Your task to perform on an android device: refresh tabs in the chrome app Image 0: 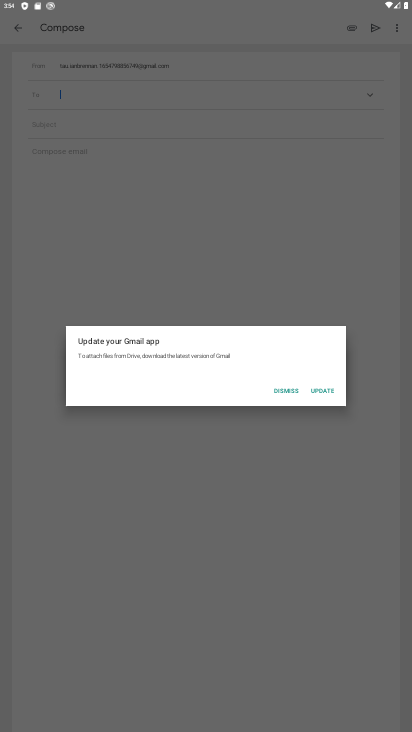
Step 0: press home button
Your task to perform on an android device: refresh tabs in the chrome app Image 1: 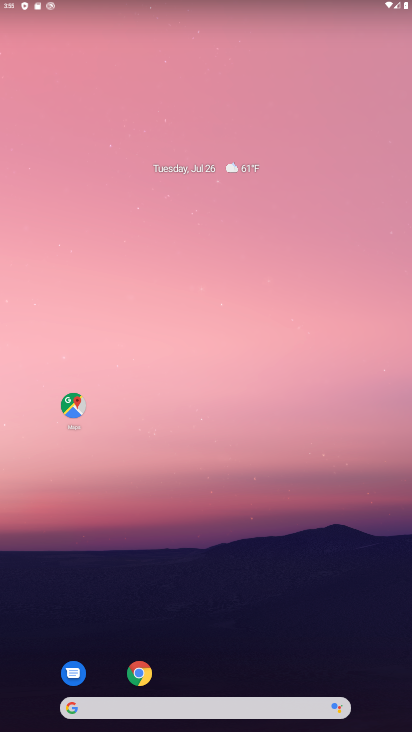
Step 1: click (134, 668)
Your task to perform on an android device: refresh tabs in the chrome app Image 2: 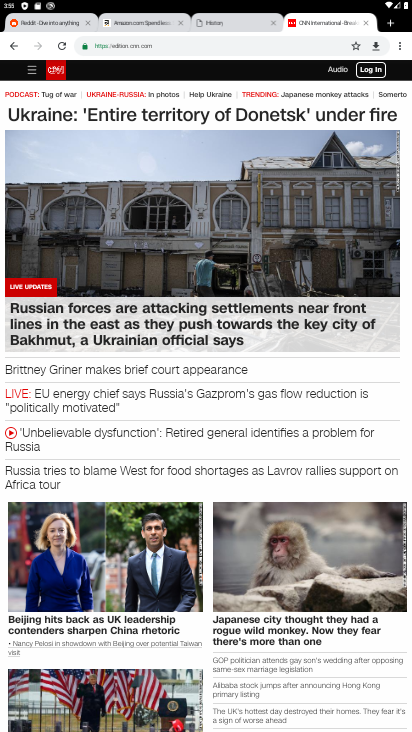
Step 2: click (57, 46)
Your task to perform on an android device: refresh tabs in the chrome app Image 3: 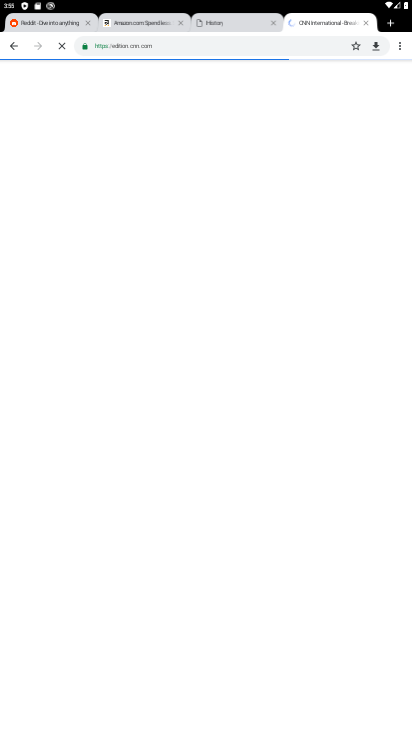
Step 3: task complete